Your task to perform on an android device: set an alarm Image 0: 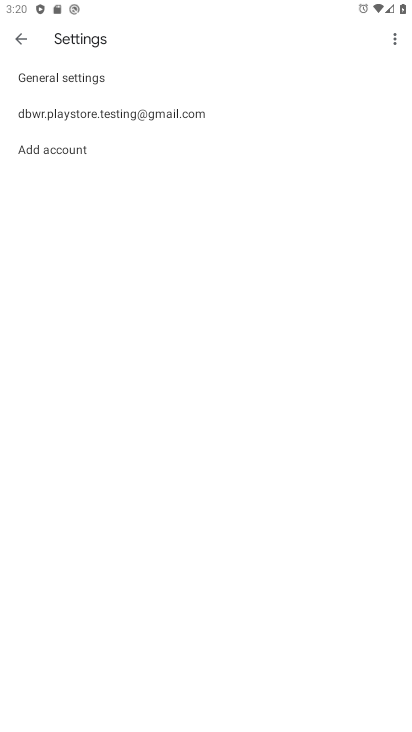
Step 0: press home button
Your task to perform on an android device: set an alarm Image 1: 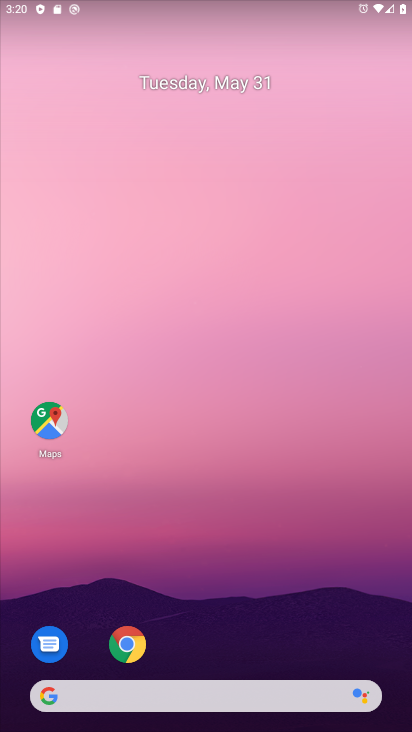
Step 1: drag from (240, 586) to (217, 7)
Your task to perform on an android device: set an alarm Image 2: 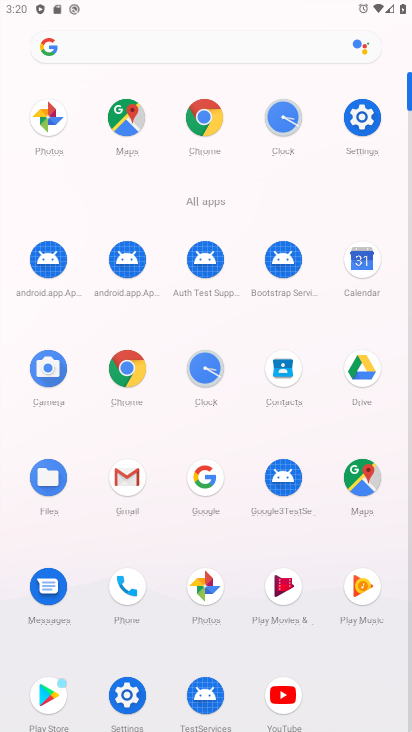
Step 2: click (290, 145)
Your task to perform on an android device: set an alarm Image 3: 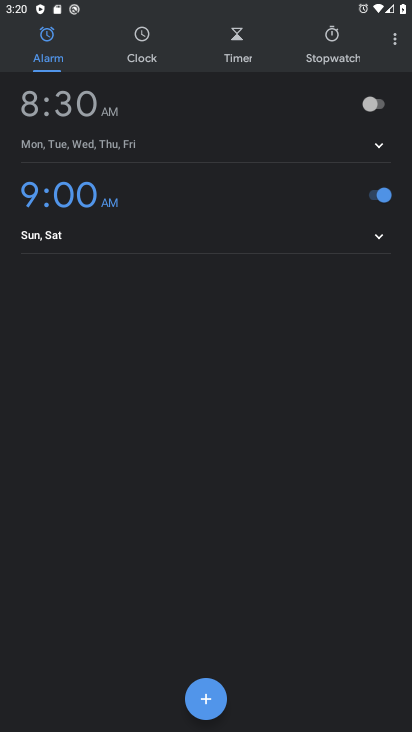
Step 3: click (376, 105)
Your task to perform on an android device: set an alarm Image 4: 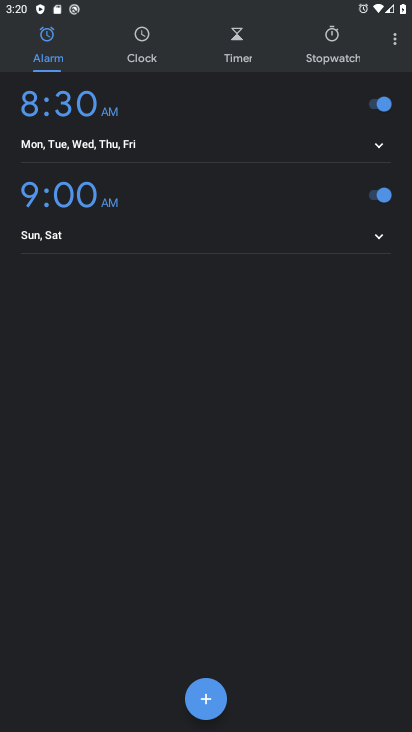
Step 4: task complete